Your task to perform on an android device: open app "HBO Max: Stream TV & Movies" (install if not already installed) and enter user name: "faring@outlook.com" and password: "appropriately" Image 0: 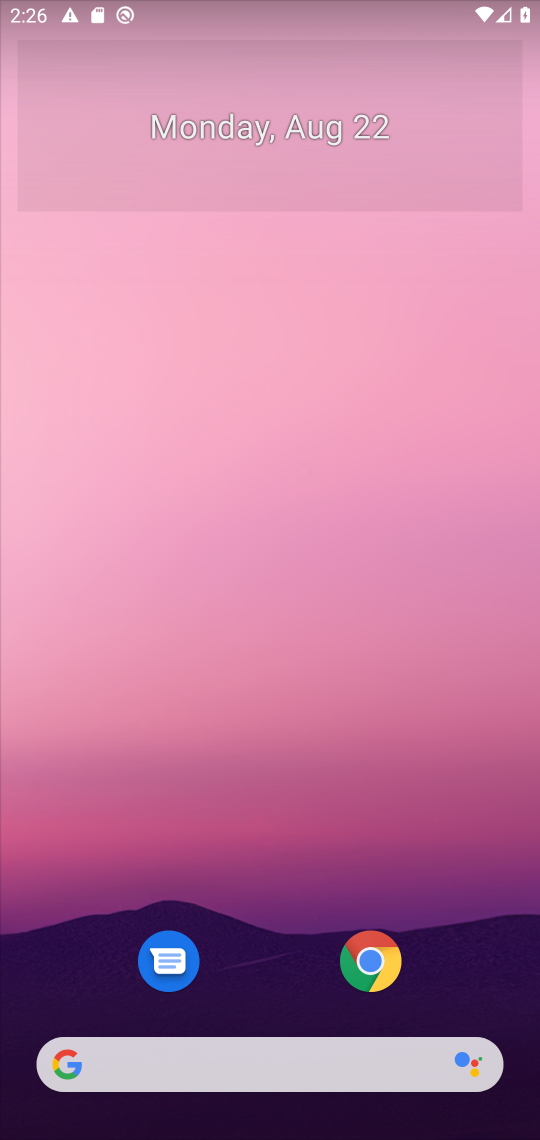
Step 0: press home button
Your task to perform on an android device: open app "HBO Max: Stream TV & Movies" (install if not already installed) and enter user name: "faring@outlook.com" and password: "appropriately" Image 1: 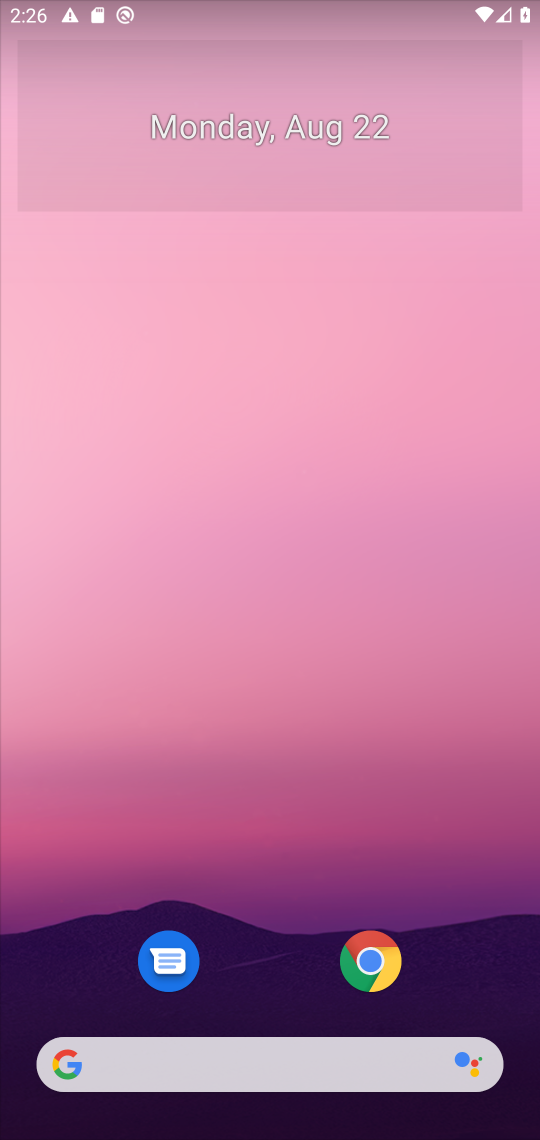
Step 1: drag from (471, 993) to (468, 143)
Your task to perform on an android device: open app "HBO Max: Stream TV & Movies" (install if not already installed) and enter user name: "faring@outlook.com" and password: "appropriately" Image 2: 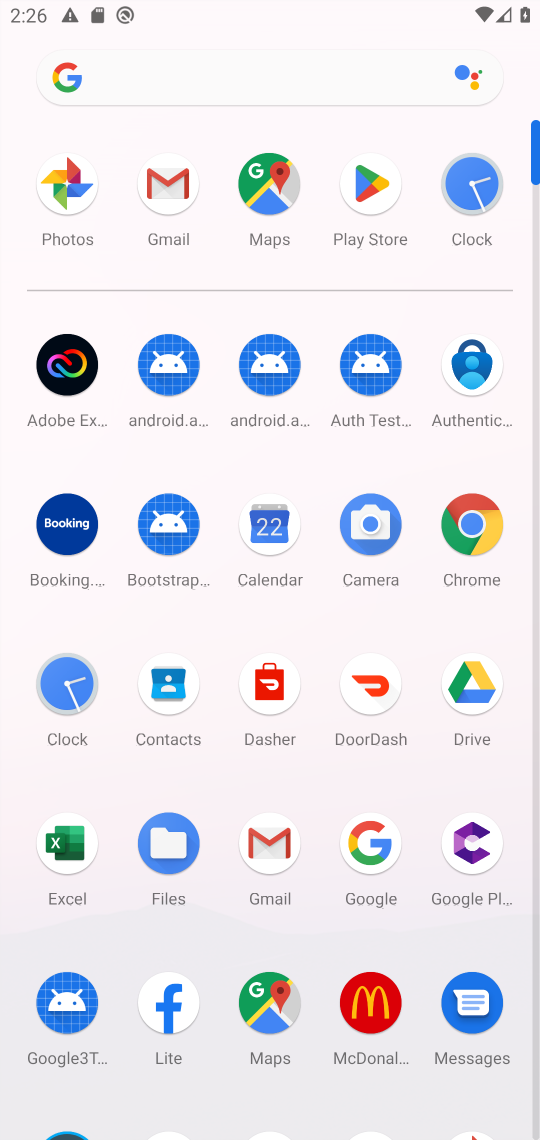
Step 2: click (368, 190)
Your task to perform on an android device: open app "HBO Max: Stream TV & Movies" (install if not already installed) and enter user name: "faring@outlook.com" and password: "appropriately" Image 3: 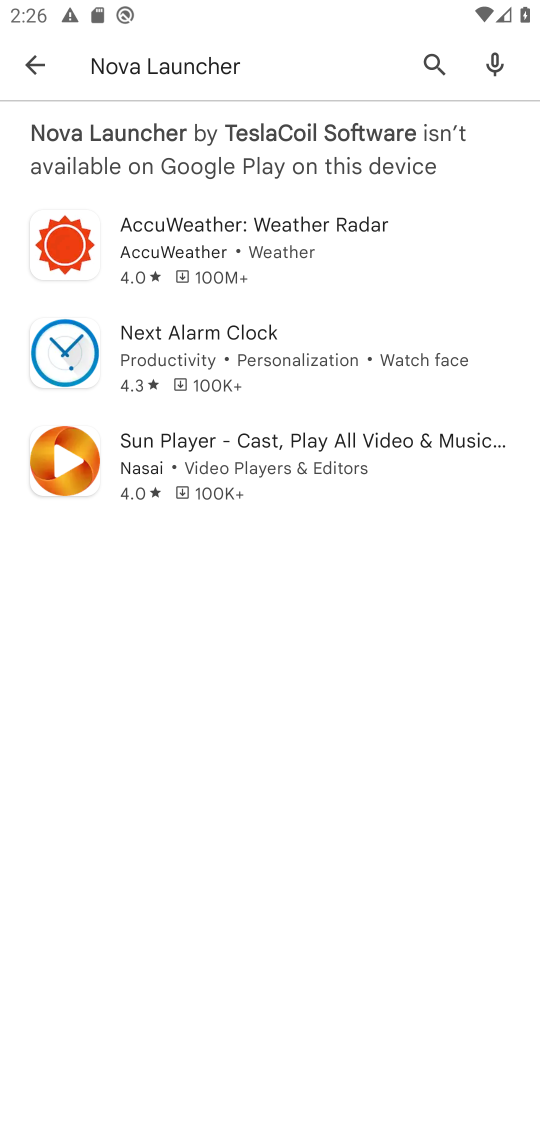
Step 3: press back button
Your task to perform on an android device: open app "HBO Max: Stream TV & Movies" (install if not already installed) and enter user name: "faring@outlook.com" and password: "appropriately" Image 4: 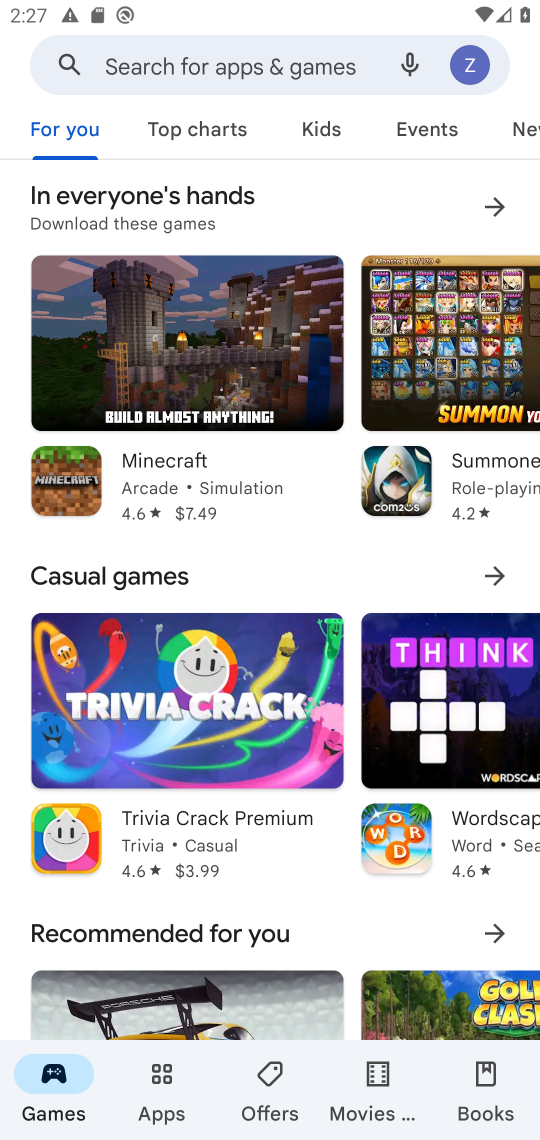
Step 4: click (263, 62)
Your task to perform on an android device: open app "HBO Max: Stream TV & Movies" (install if not already installed) and enter user name: "faring@outlook.com" and password: "appropriately" Image 5: 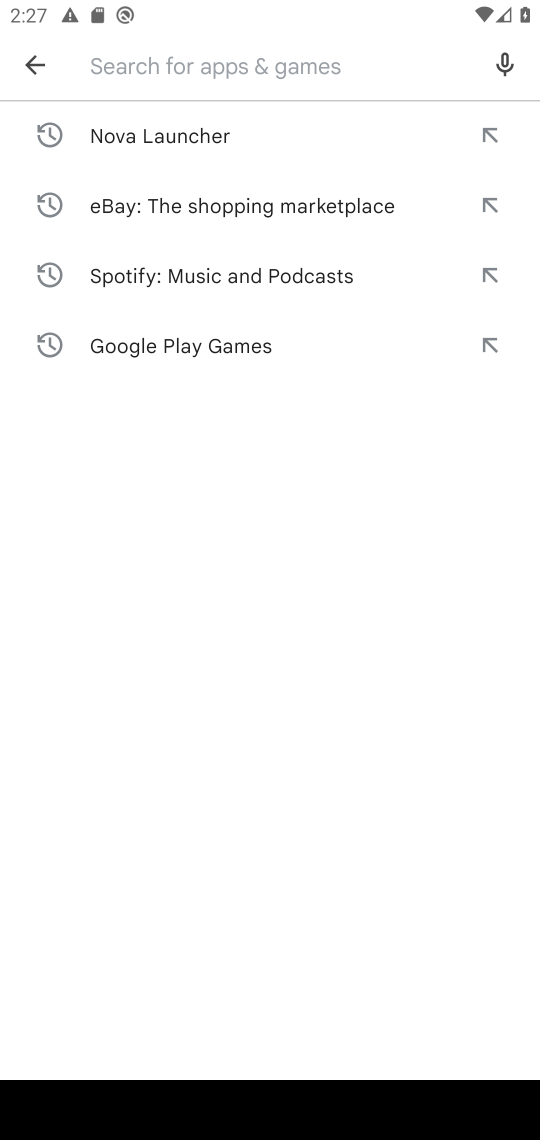
Step 5: type "HBO Max: Stream TV & Movies"
Your task to perform on an android device: open app "HBO Max: Stream TV & Movies" (install if not already installed) and enter user name: "faring@outlook.com" and password: "appropriately" Image 6: 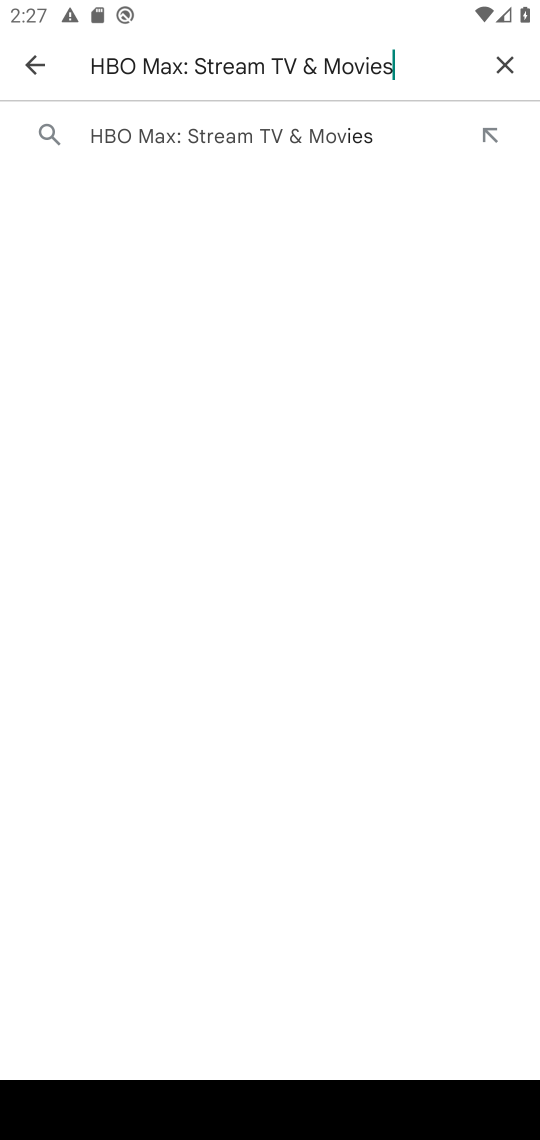
Step 6: press enter
Your task to perform on an android device: open app "HBO Max: Stream TV & Movies" (install if not already installed) and enter user name: "faring@outlook.com" and password: "appropriately" Image 7: 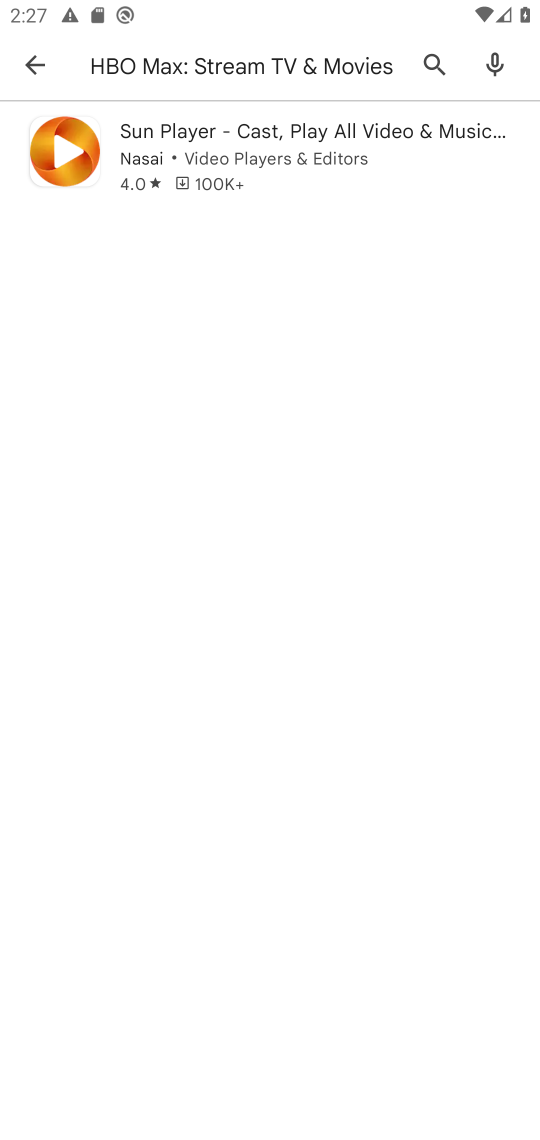
Step 7: task complete